Your task to perform on an android device: Open calendar and show me the second week of next month Image 0: 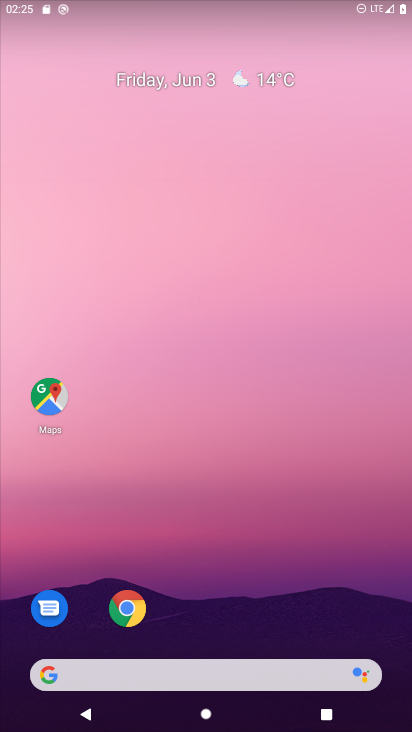
Step 0: drag from (268, 458) to (285, 126)
Your task to perform on an android device: Open calendar and show me the second week of next month Image 1: 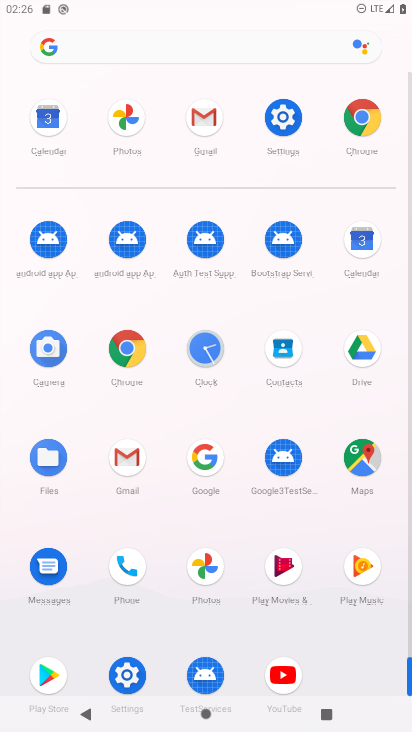
Step 1: click (359, 236)
Your task to perform on an android device: Open calendar and show me the second week of next month Image 2: 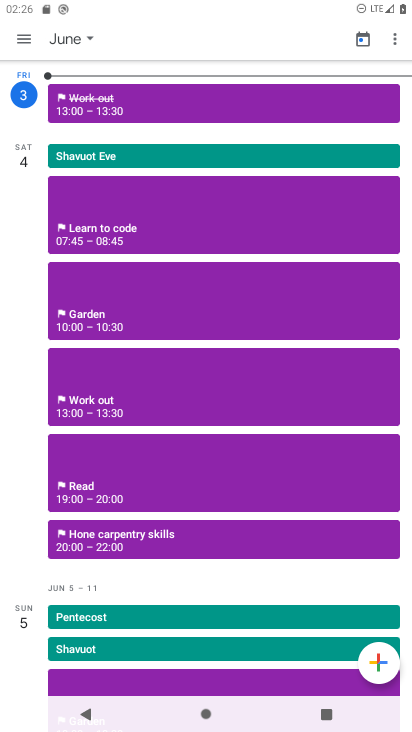
Step 2: click (67, 32)
Your task to perform on an android device: Open calendar and show me the second week of next month Image 3: 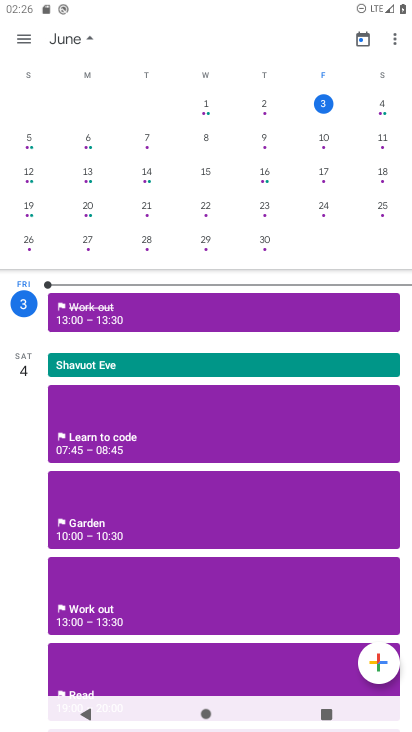
Step 3: drag from (377, 197) to (35, 194)
Your task to perform on an android device: Open calendar and show me the second week of next month Image 4: 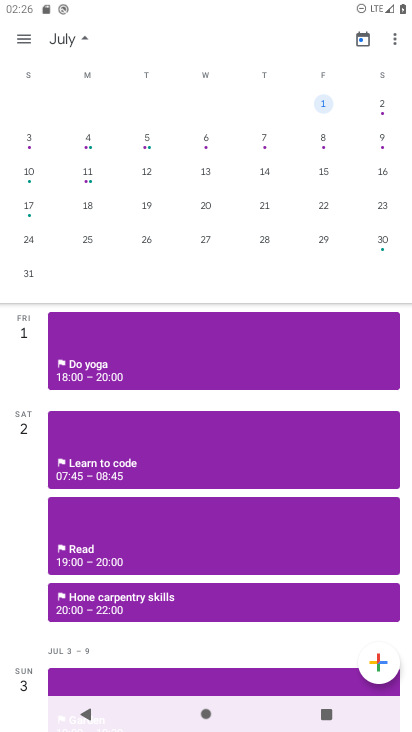
Step 4: click (23, 172)
Your task to perform on an android device: Open calendar and show me the second week of next month Image 5: 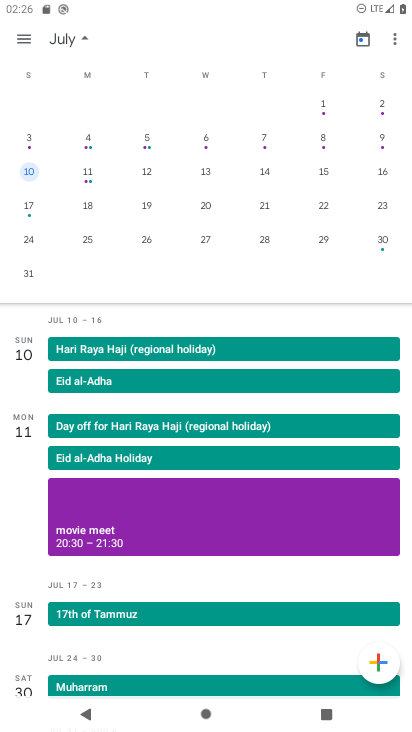
Step 5: click (22, 35)
Your task to perform on an android device: Open calendar and show me the second week of next month Image 6: 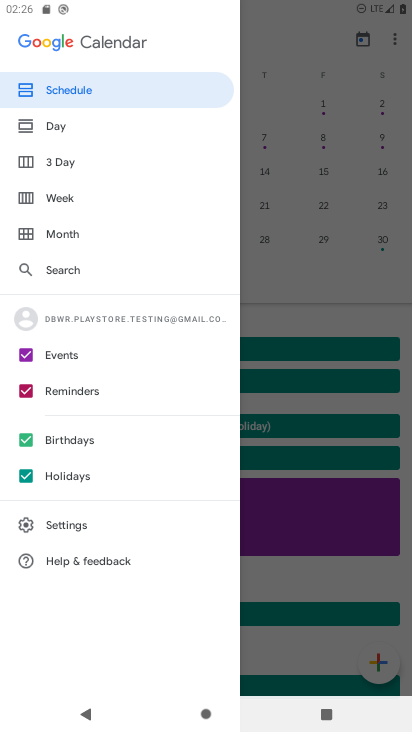
Step 6: click (66, 192)
Your task to perform on an android device: Open calendar and show me the second week of next month Image 7: 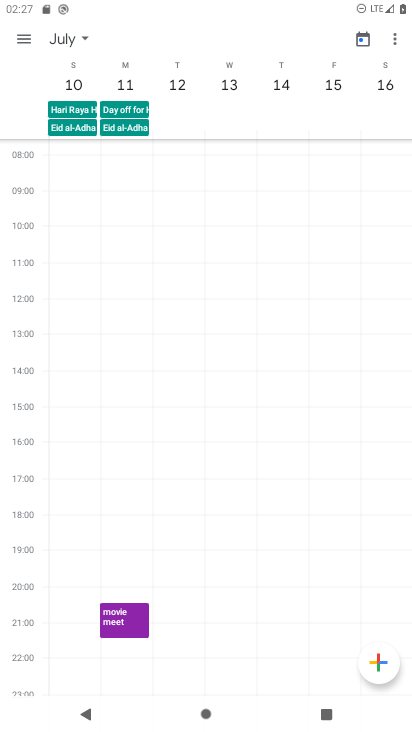
Step 7: task complete